Your task to perform on an android device: What's the weather? Image 0: 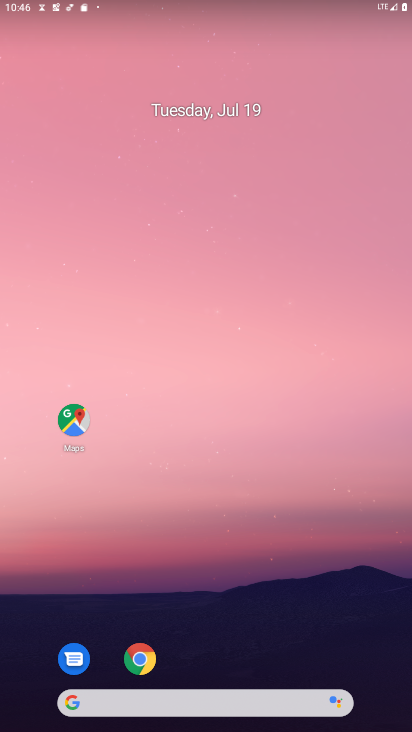
Step 0: drag from (181, 664) to (265, 35)
Your task to perform on an android device: What's the weather? Image 1: 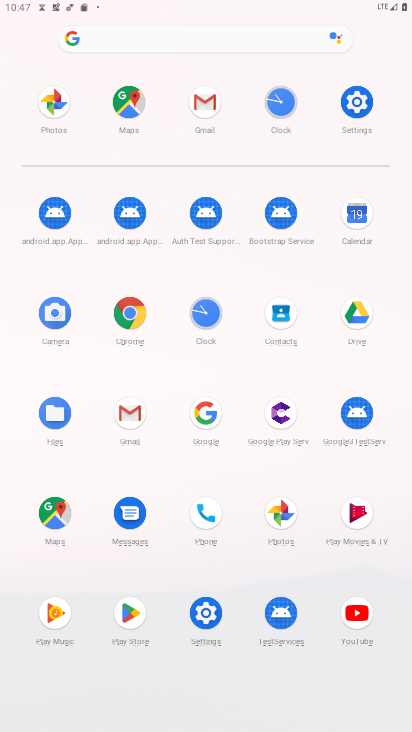
Step 1: click (180, 38)
Your task to perform on an android device: What's the weather? Image 2: 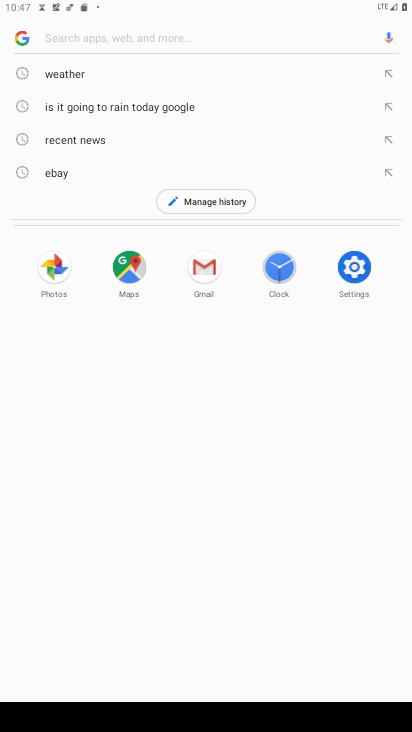
Step 2: type "What's the weather?"
Your task to perform on an android device: What's the weather? Image 3: 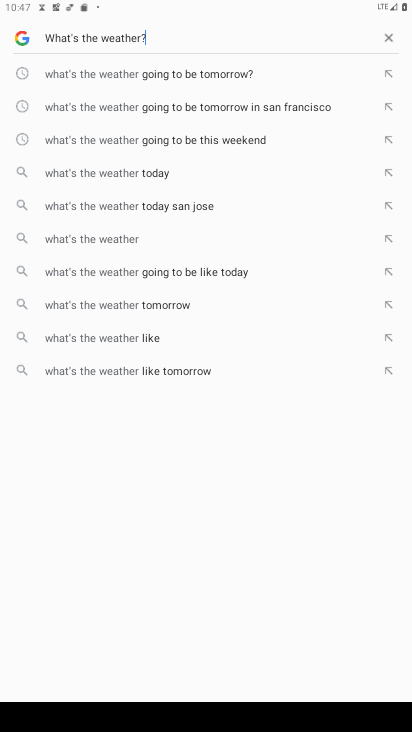
Step 3: type ""
Your task to perform on an android device: What's the weather? Image 4: 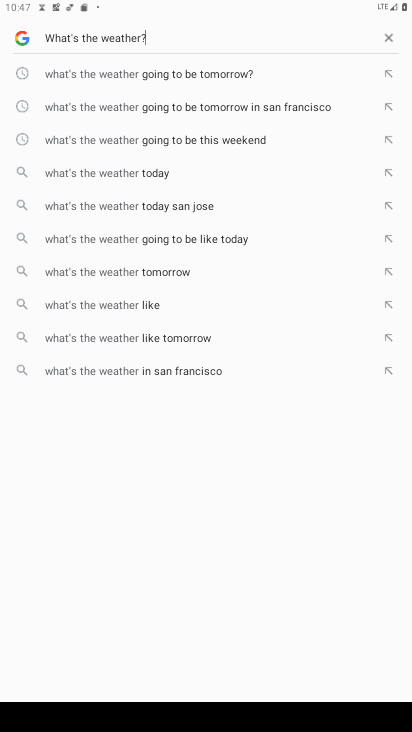
Step 4: click (153, 172)
Your task to perform on an android device: What's the weather? Image 5: 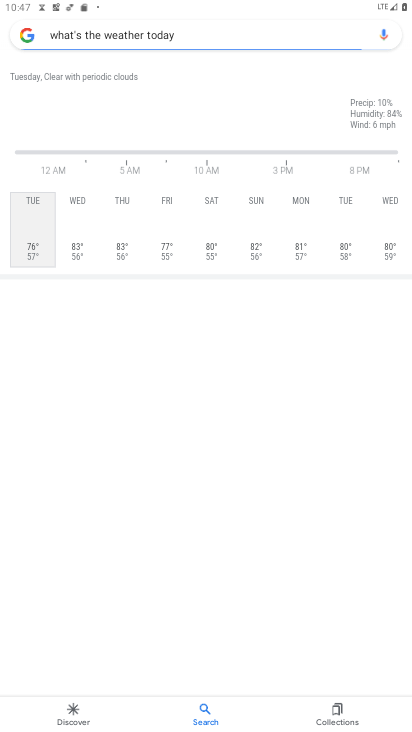
Step 5: task complete